Your task to perform on an android device: clear all cookies in the chrome app Image 0: 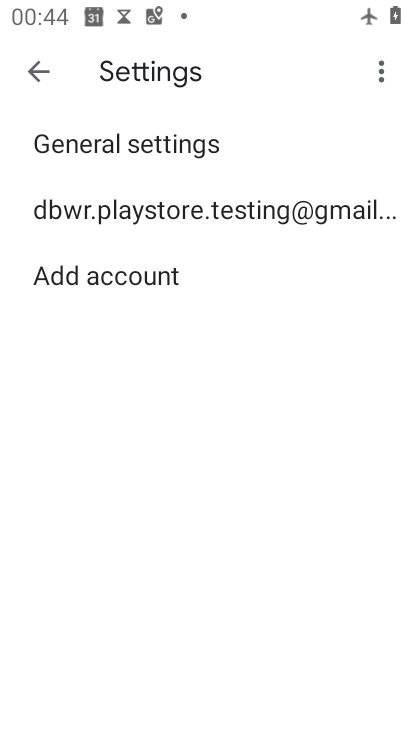
Step 0: press home button
Your task to perform on an android device: clear all cookies in the chrome app Image 1: 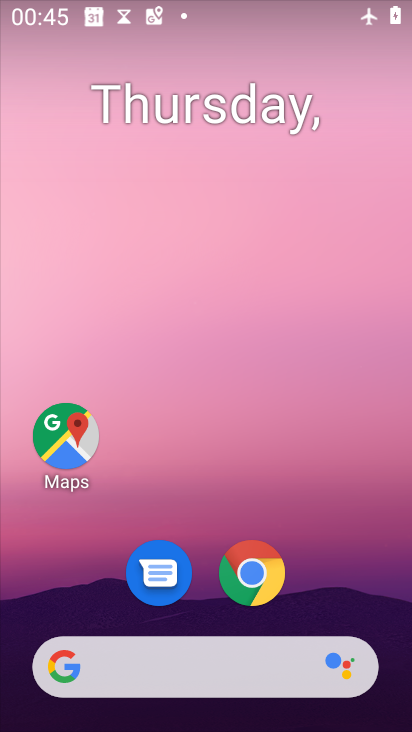
Step 1: click (249, 567)
Your task to perform on an android device: clear all cookies in the chrome app Image 2: 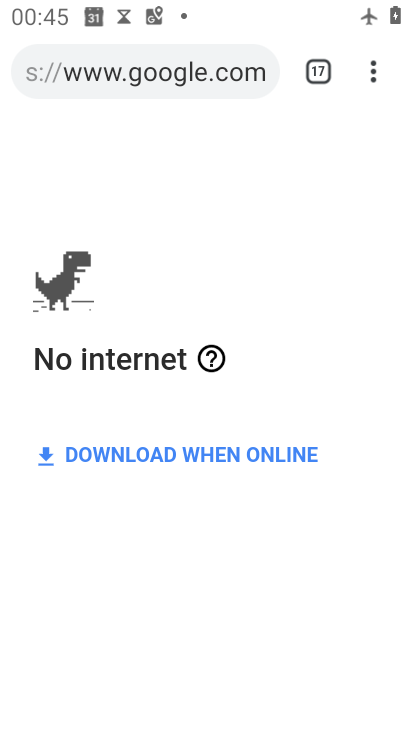
Step 2: click (371, 65)
Your task to perform on an android device: clear all cookies in the chrome app Image 3: 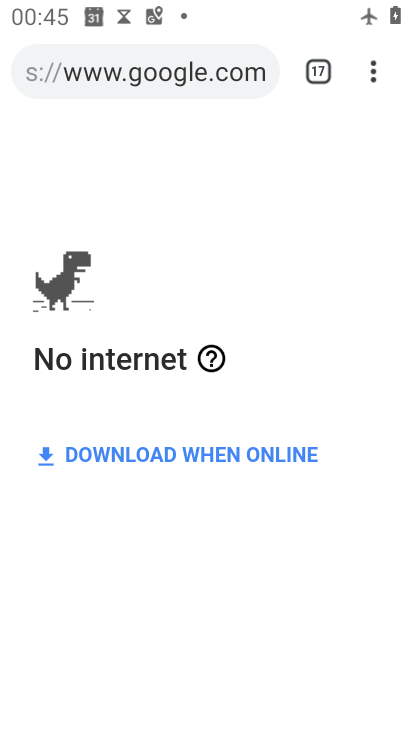
Step 3: click (370, 82)
Your task to perform on an android device: clear all cookies in the chrome app Image 4: 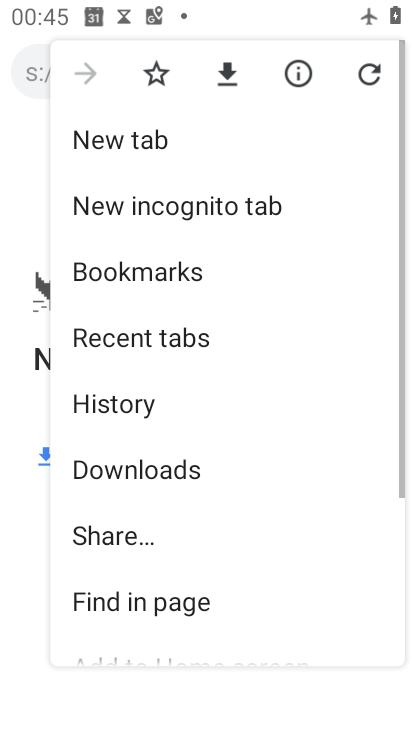
Step 4: click (163, 138)
Your task to perform on an android device: clear all cookies in the chrome app Image 5: 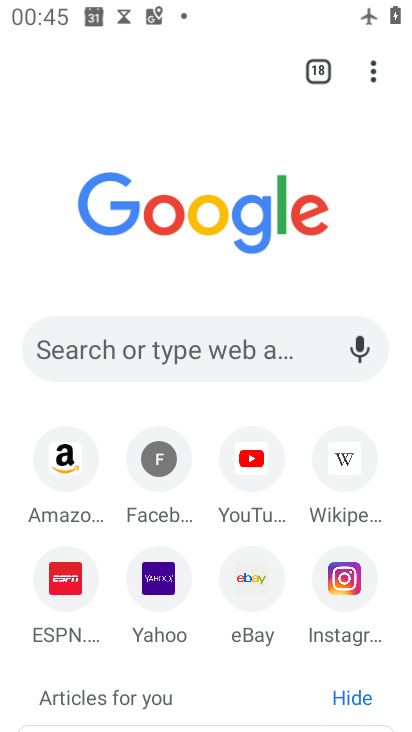
Step 5: click (380, 57)
Your task to perform on an android device: clear all cookies in the chrome app Image 6: 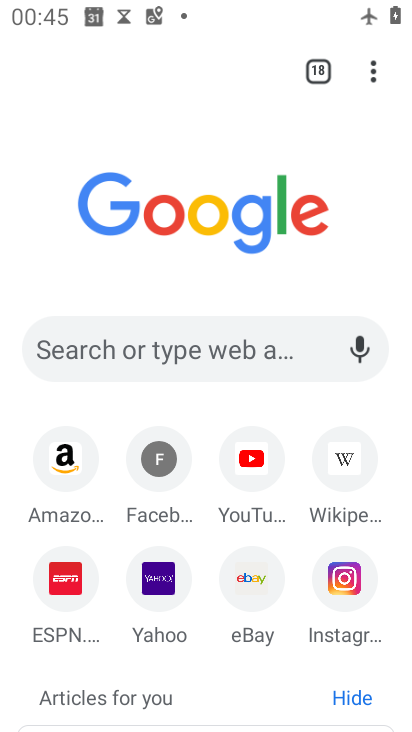
Step 6: click (369, 70)
Your task to perform on an android device: clear all cookies in the chrome app Image 7: 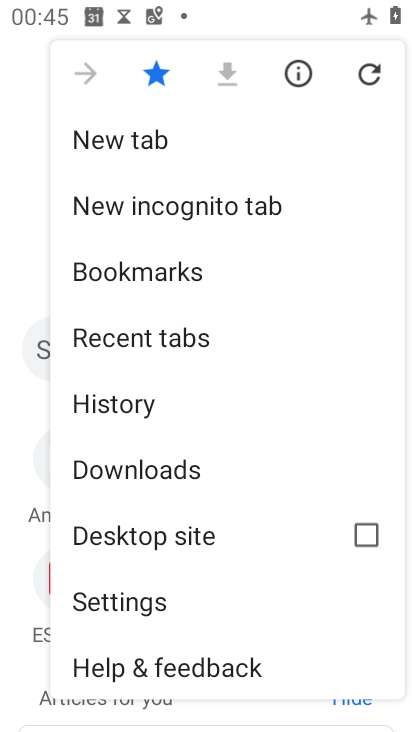
Step 7: click (162, 603)
Your task to perform on an android device: clear all cookies in the chrome app Image 8: 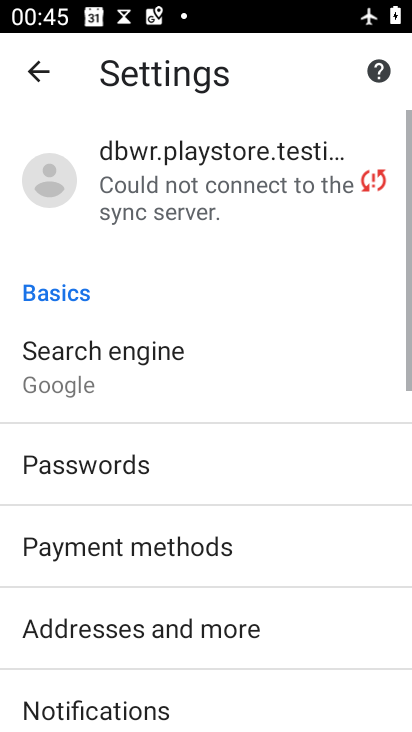
Step 8: drag from (157, 628) to (206, 214)
Your task to perform on an android device: clear all cookies in the chrome app Image 9: 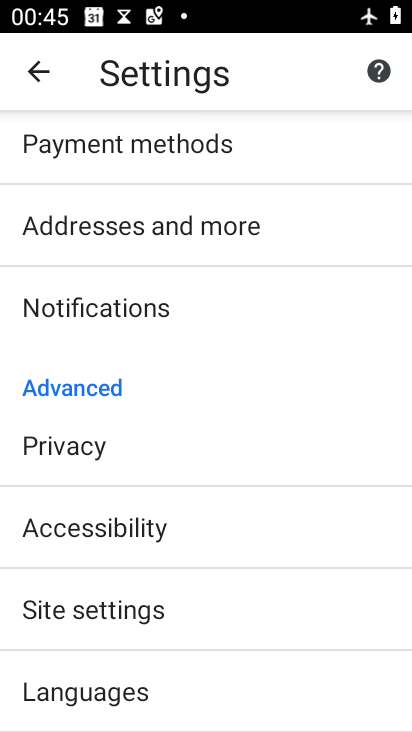
Step 9: click (107, 448)
Your task to perform on an android device: clear all cookies in the chrome app Image 10: 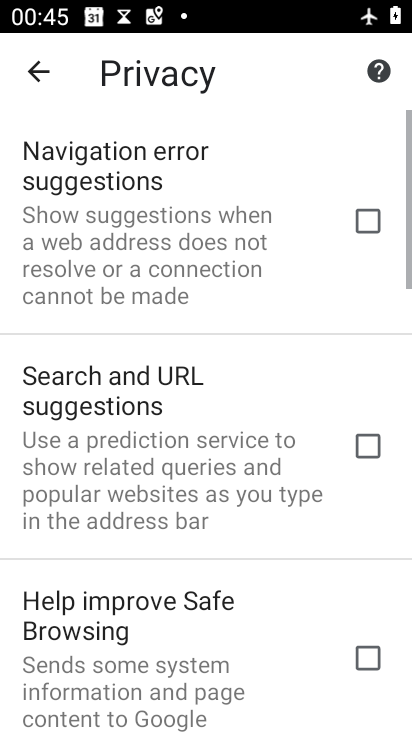
Step 10: drag from (178, 596) to (235, 196)
Your task to perform on an android device: clear all cookies in the chrome app Image 11: 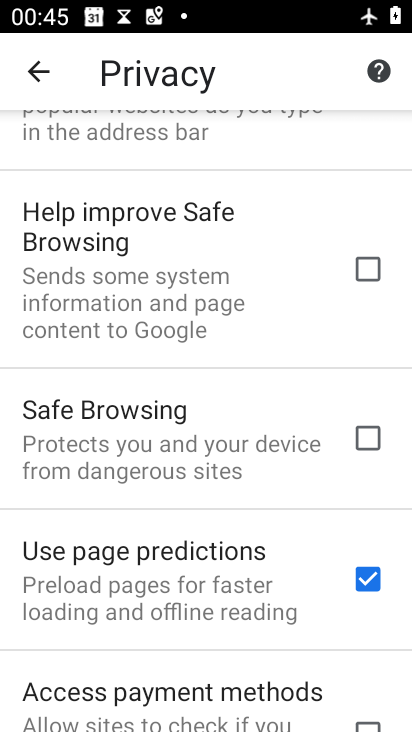
Step 11: drag from (150, 651) to (241, 225)
Your task to perform on an android device: clear all cookies in the chrome app Image 12: 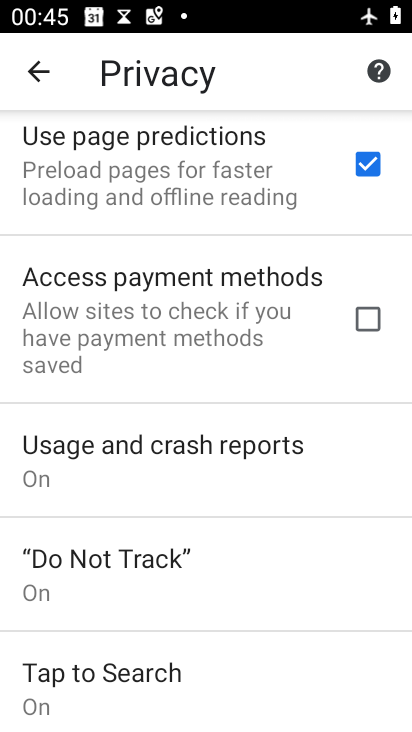
Step 12: drag from (206, 645) to (272, 225)
Your task to perform on an android device: clear all cookies in the chrome app Image 13: 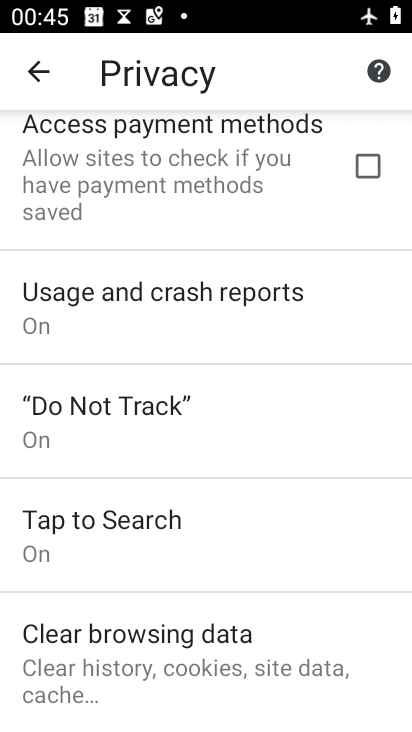
Step 13: click (159, 663)
Your task to perform on an android device: clear all cookies in the chrome app Image 14: 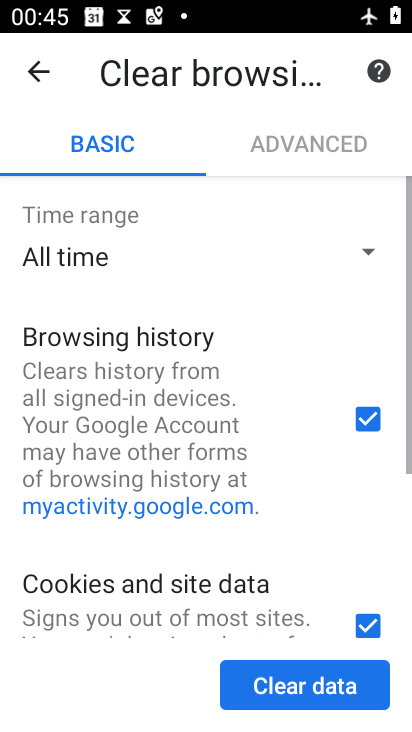
Step 14: click (330, 694)
Your task to perform on an android device: clear all cookies in the chrome app Image 15: 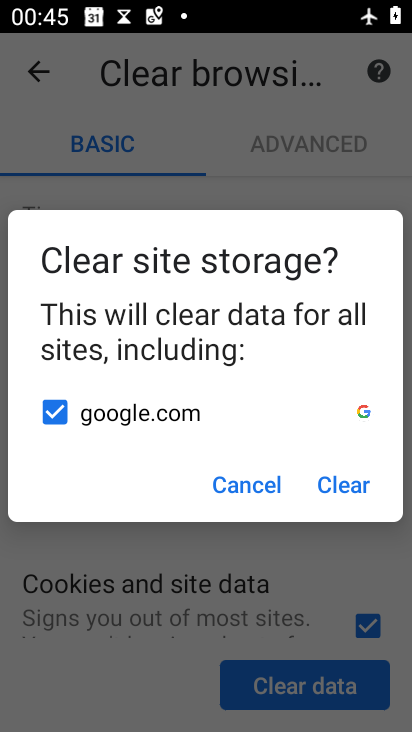
Step 15: click (352, 489)
Your task to perform on an android device: clear all cookies in the chrome app Image 16: 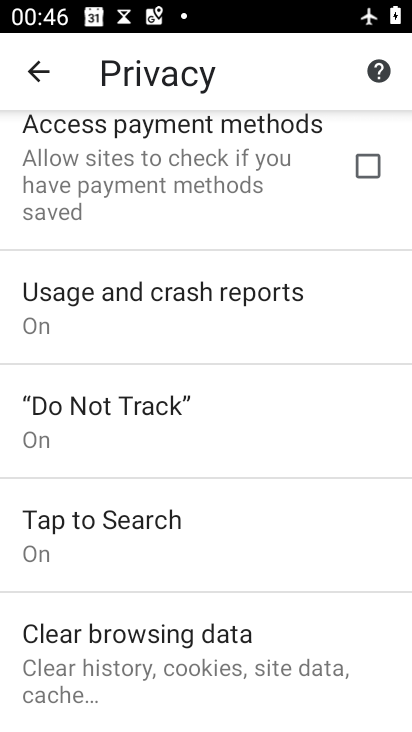
Step 16: task complete